Your task to perform on an android device: Open Google Chrome Image 0: 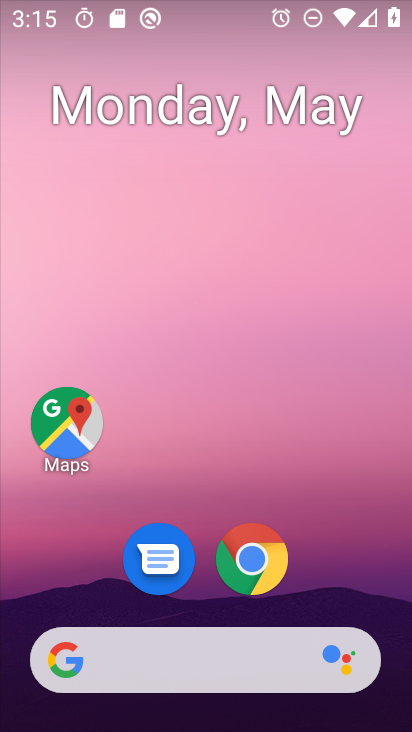
Step 0: click (294, 163)
Your task to perform on an android device: Open Google Chrome Image 1: 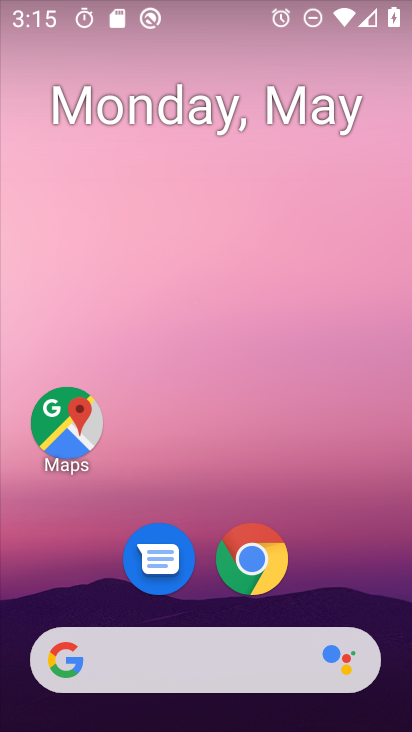
Step 1: click (260, 550)
Your task to perform on an android device: Open Google Chrome Image 2: 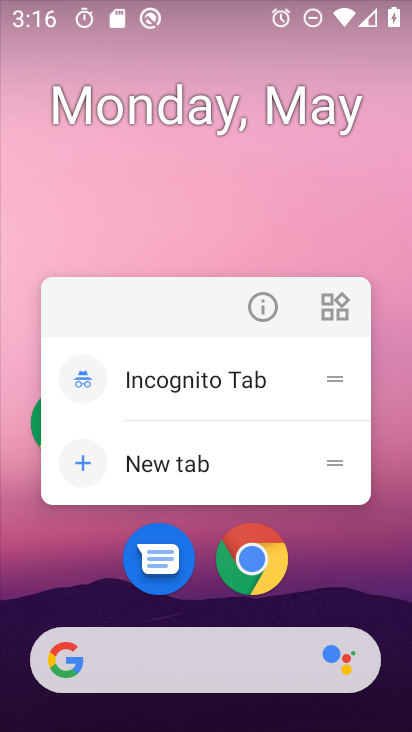
Step 2: click (253, 299)
Your task to perform on an android device: Open Google Chrome Image 3: 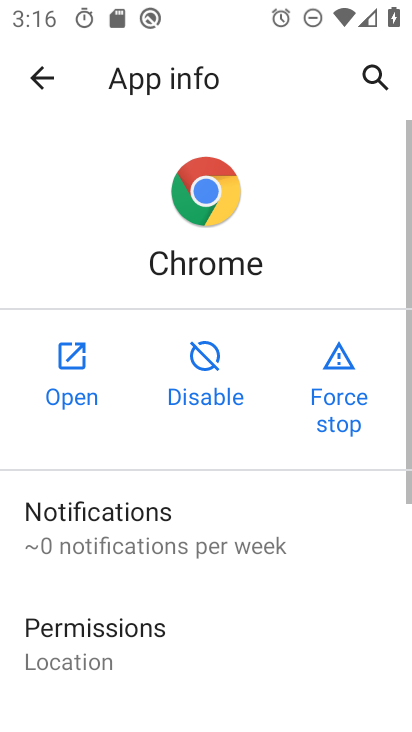
Step 3: click (68, 376)
Your task to perform on an android device: Open Google Chrome Image 4: 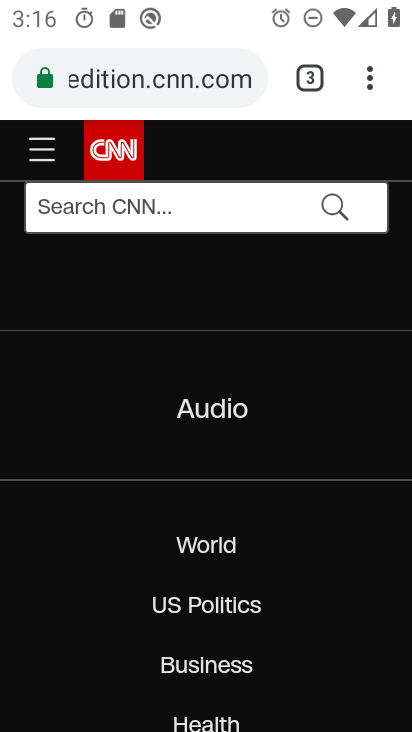
Step 4: drag from (276, 644) to (247, 311)
Your task to perform on an android device: Open Google Chrome Image 5: 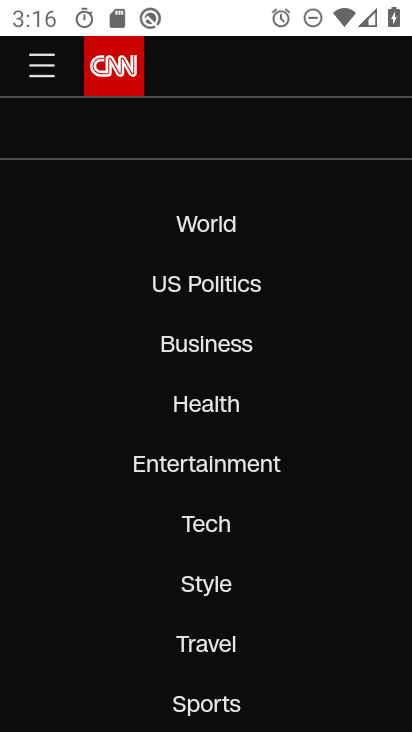
Step 5: drag from (241, 599) to (268, 304)
Your task to perform on an android device: Open Google Chrome Image 6: 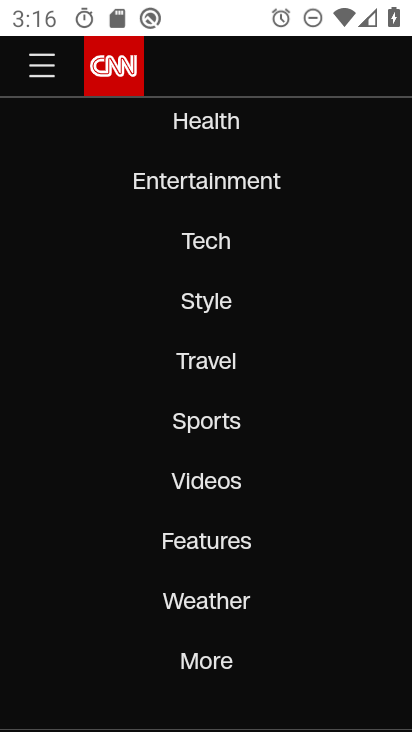
Step 6: drag from (259, 347) to (286, 731)
Your task to perform on an android device: Open Google Chrome Image 7: 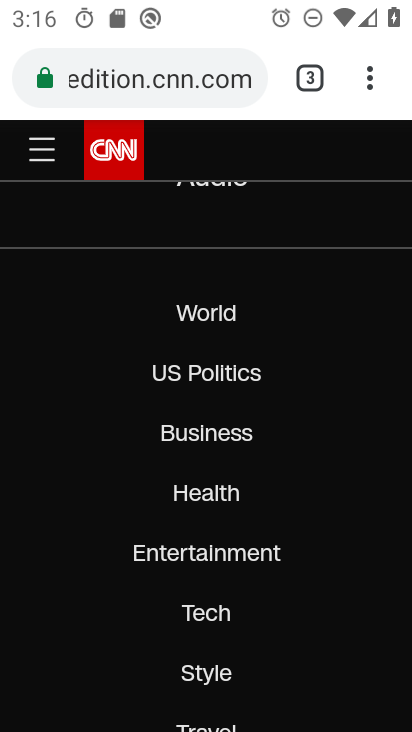
Step 7: drag from (235, 660) to (260, 246)
Your task to perform on an android device: Open Google Chrome Image 8: 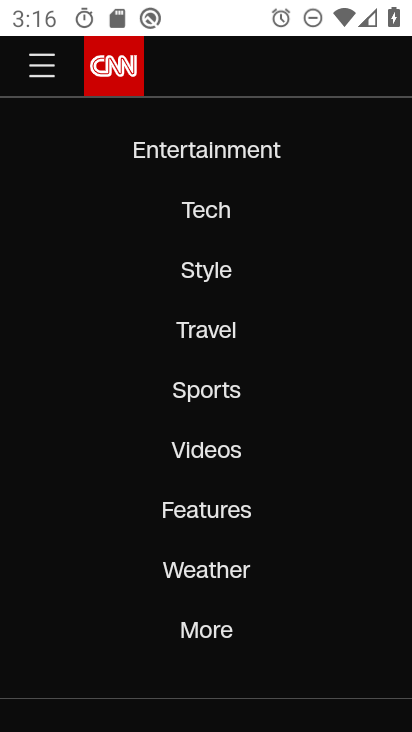
Step 8: drag from (267, 327) to (268, 727)
Your task to perform on an android device: Open Google Chrome Image 9: 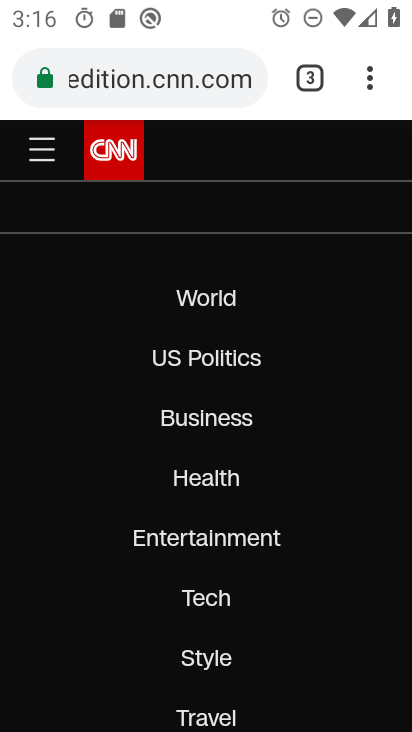
Step 9: drag from (291, 374) to (299, 715)
Your task to perform on an android device: Open Google Chrome Image 10: 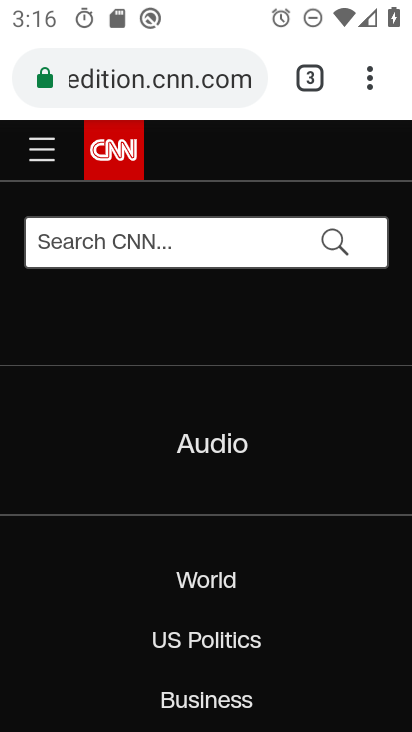
Step 10: click (371, 74)
Your task to perform on an android device: Open Google Chrome Image 11: 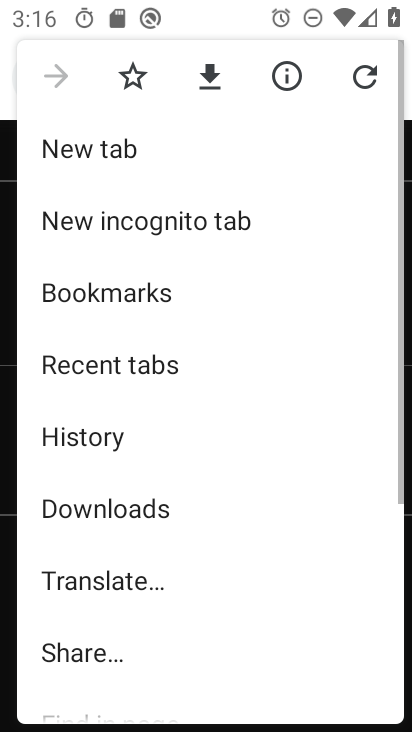
Step 11: drag from (193, 588) to (272, 115)
Your task to perform on an android device: Open Google Chrome Image 12: 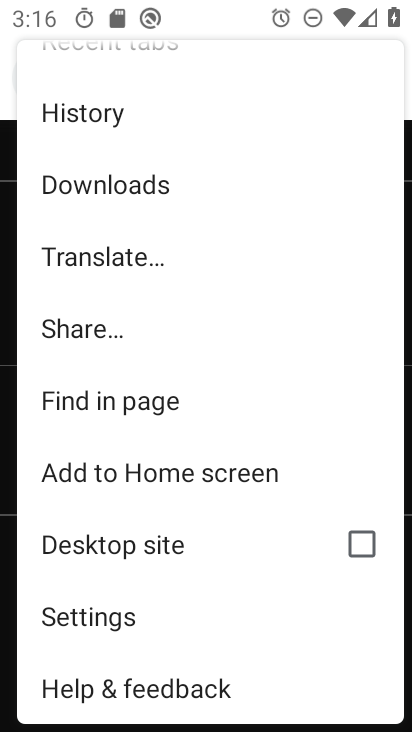
Step 12: click (158, 632)
Your task to perform on an android device: Open Google Chrome Image 13: 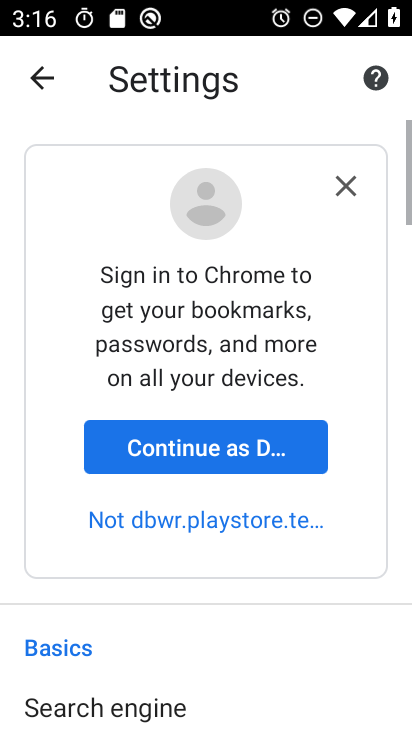
Step 13: task complete